Your task to perform on an android device: set the stopwatch Image 0: 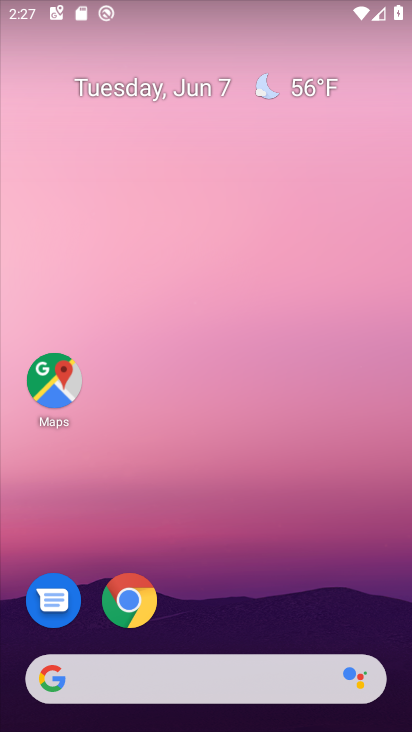
Step 0: drag from (190, 528) to (236, 289)
Your task to perform on an android device: set the stopwatch Image 1: 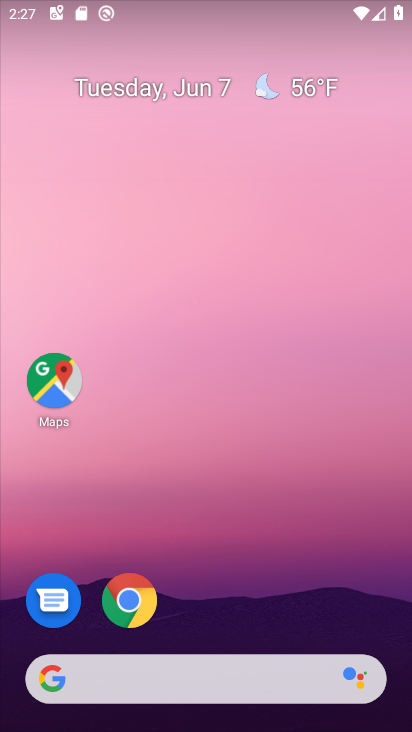
Step 1: drag from (219, 642) to (294, 28)
Your task to perform on an android device: set the stopwatch Image 2: 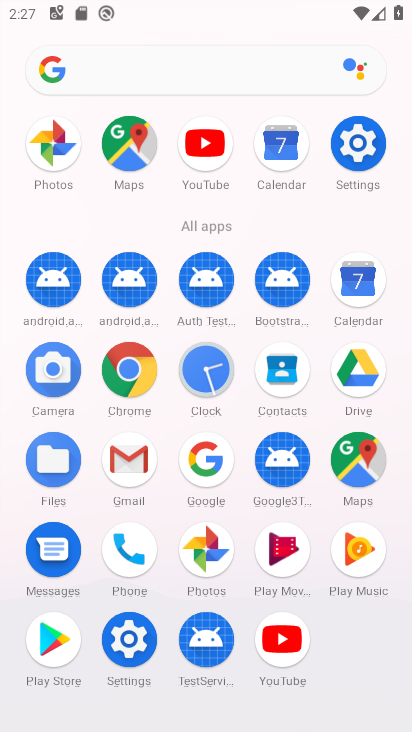
Step 2: click (200, 398)
Your task to perform on an android device: set the stopwatch Image 3: 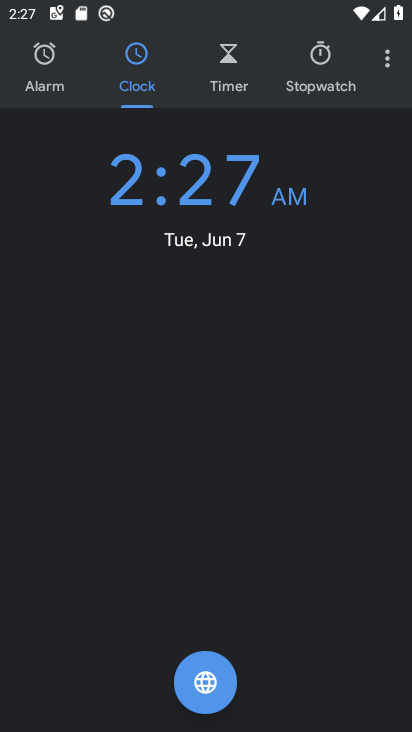
Step 3: click (328, 79)
Your task to perform on an android device: set the stopwatch Image 4: 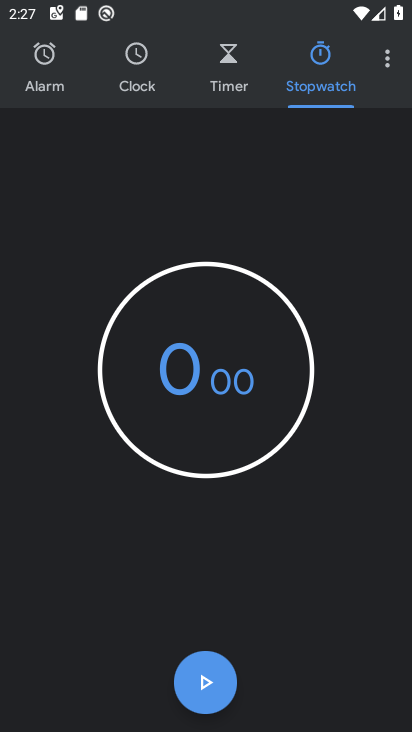
Step 4: click (214, 700)
Your task to perform on an android device: set the stopwatch Image 5: 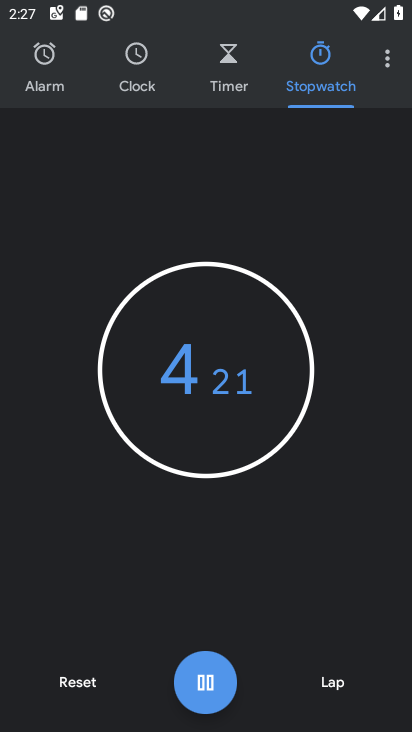
Step 5: task complete